Your task to perform on an android device: turn on sleep mode Image 0: 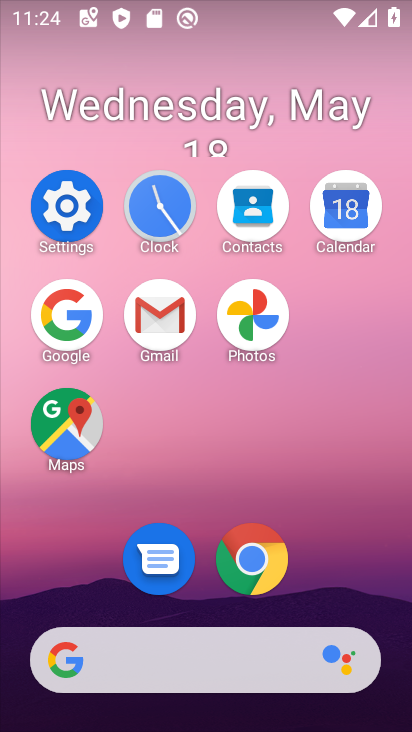
Step 0: click (67, 221)
Your task to perform on an android device: turn on sleep mode Image 1: 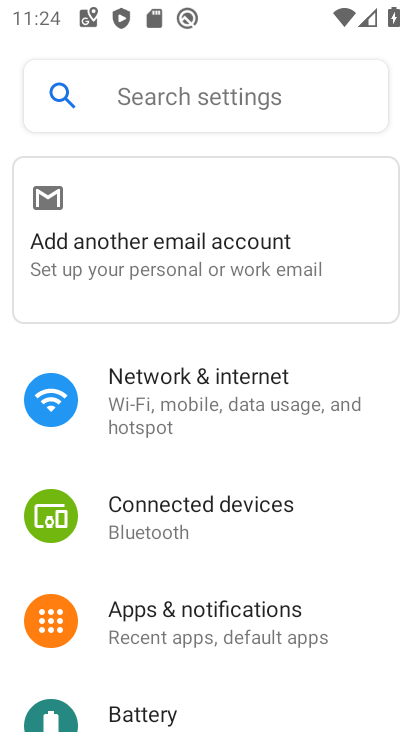
Step 1: drag from (291, 648) to (295, 279)
Your task to perform on an android device: turn on sleep mode Image 2: 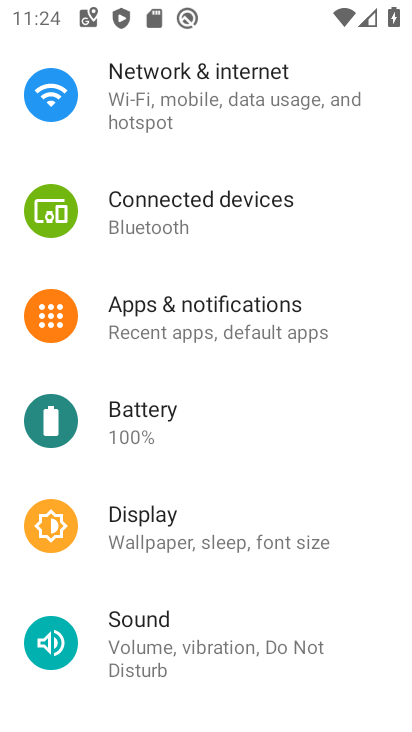
Step 2: click (239, 505)
Your task to perform on an android device: turn on sleep mode Image 3: 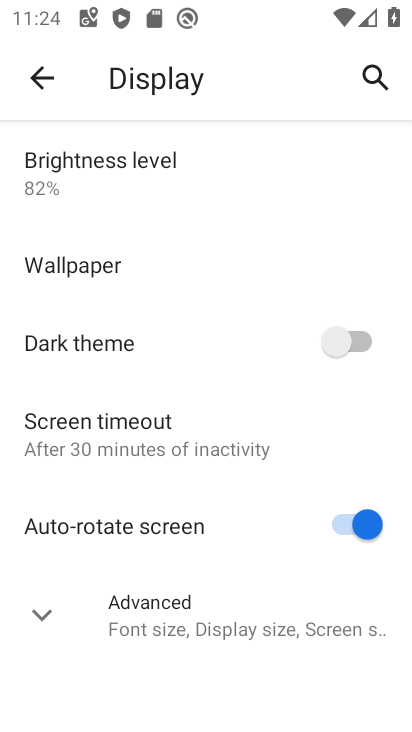
Step 3: click (204, 434)
Your task to perform on an android device: turn on sleep mode Image 4: 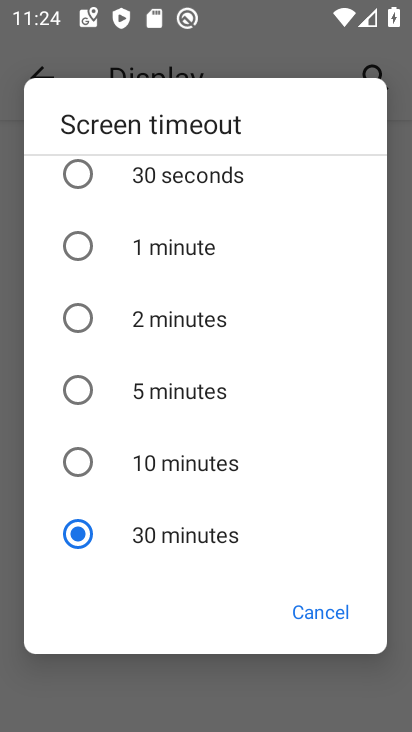
Step 4: task complete